Your task to perform on an android device: Open calendar and show me the first week of next month Image 0: 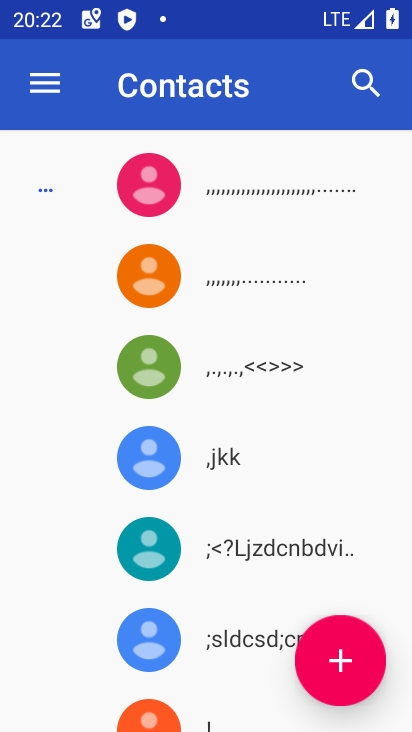
Step 0: press home button
Your task to perform on an android device: Open calendar and show me the first week of next month Image 1: 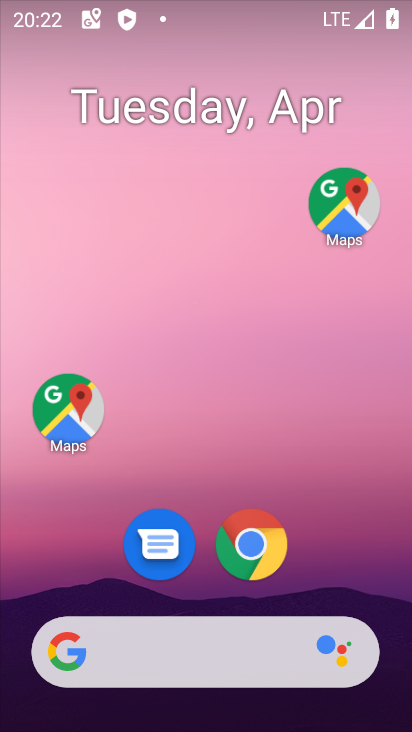
Step 1: drag from (191, 633) to (335, 204)
Your task to perform on an android device: Open calendar and show me the first week of next month Image 2: 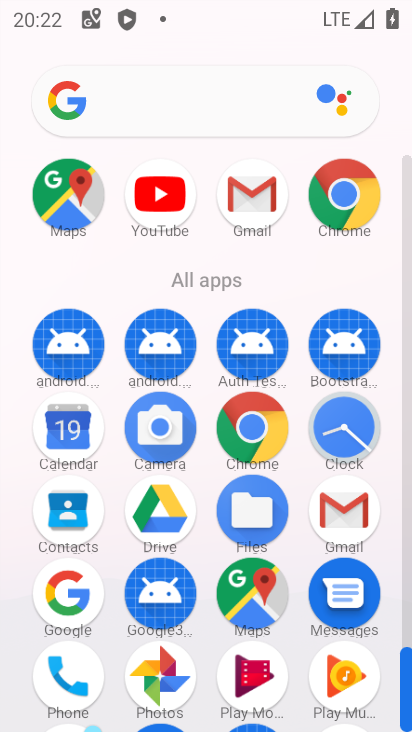
Step 2: click (51, 427)
Your task to perform on an android device: Open calendar and show me the first week of next month Image 3: 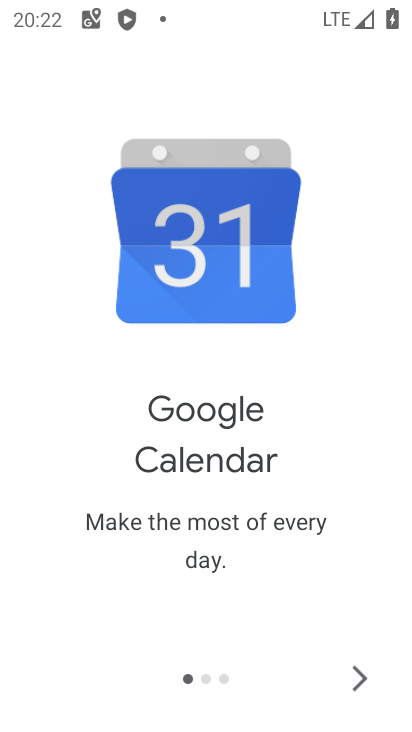
Step 3: click (365, 677)
Your task to perform on an android device: Open calendar and show me the first week of next month Image 4: 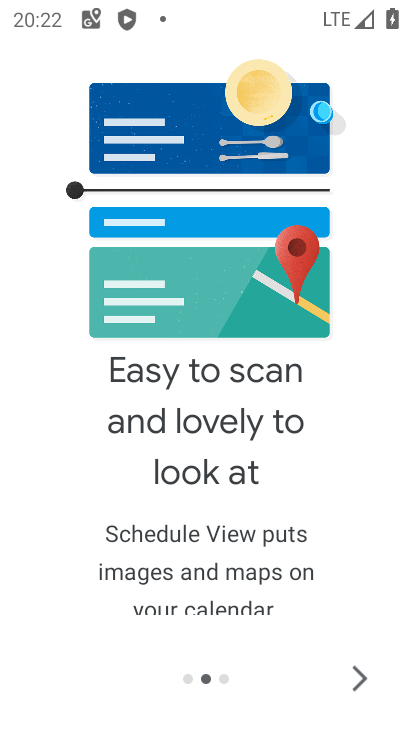
Step 4: click (364, 677)
Your task to perform on an android device: Open calendar and show me the first week of next month Image 5: 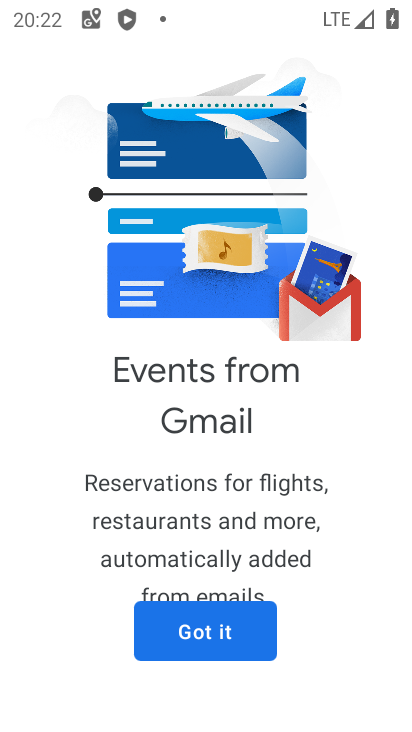
Step 5: click (183, 621)
Your task to perform on an android device: Open calendar and show me the first week of next month Image 6: 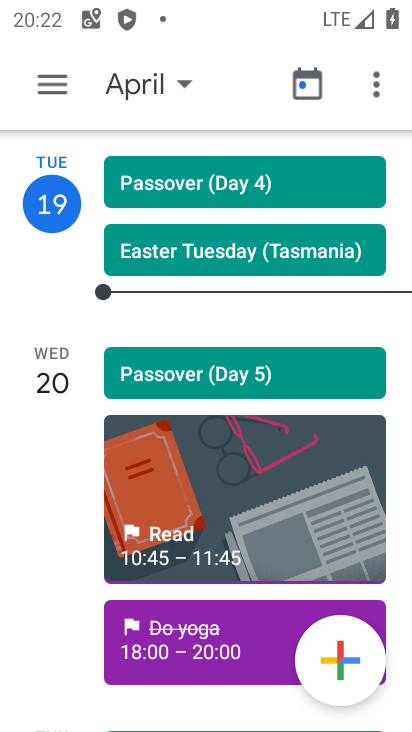
Step 6: click (139, 83)
Your task to perform on an android device: Open calendar and show me the first week of next month Image 7: 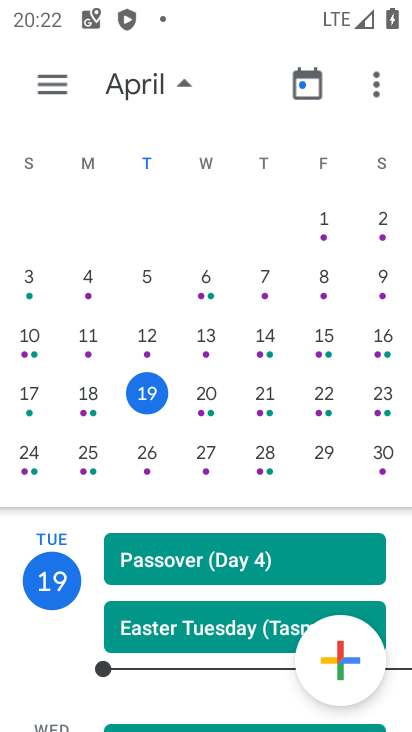
Step 7: drag from (337, 384) to (24, 313)
Your task to perform on an android device: Open calendar and show me the first week of next month Image 8: 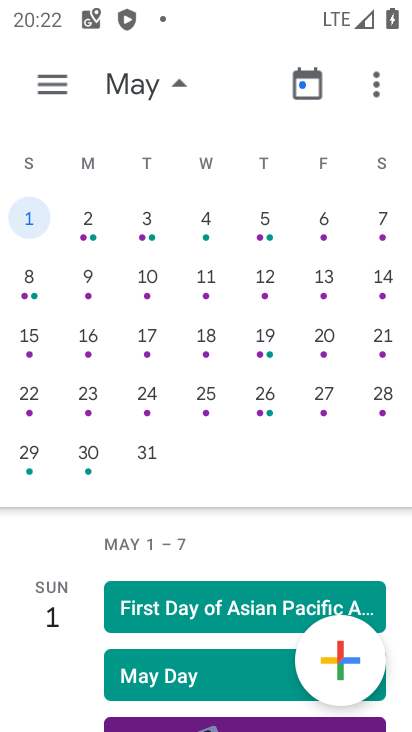
Step 8: click (54, 79)
Your task to perform on an android device: Open calendar and show me the first week of next month Image 9: 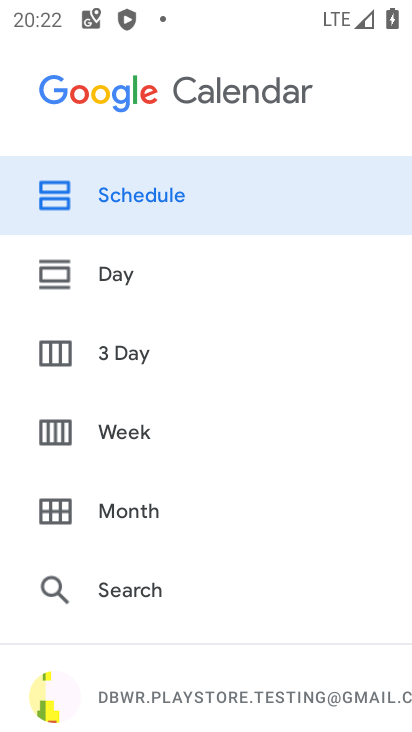
Step 9: click (123, 431)
Your task to perform on an android device: Open calendar and show me the first week of next month Image 10: 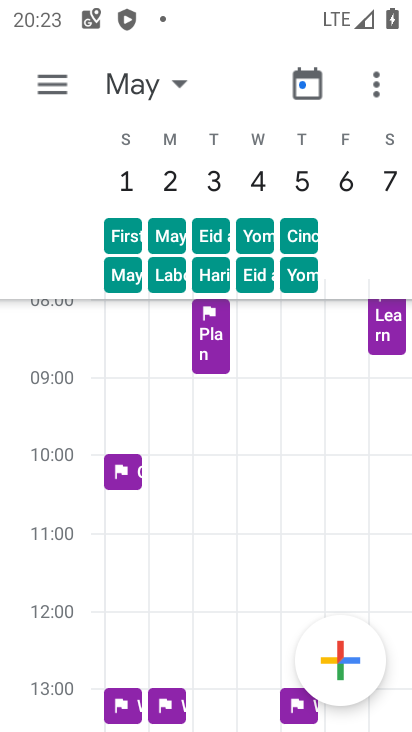
Step 10: task complete